Your task to perform on an android device: open app "LiveIn - Share Your Moment" (install if not already installed) Image 0: 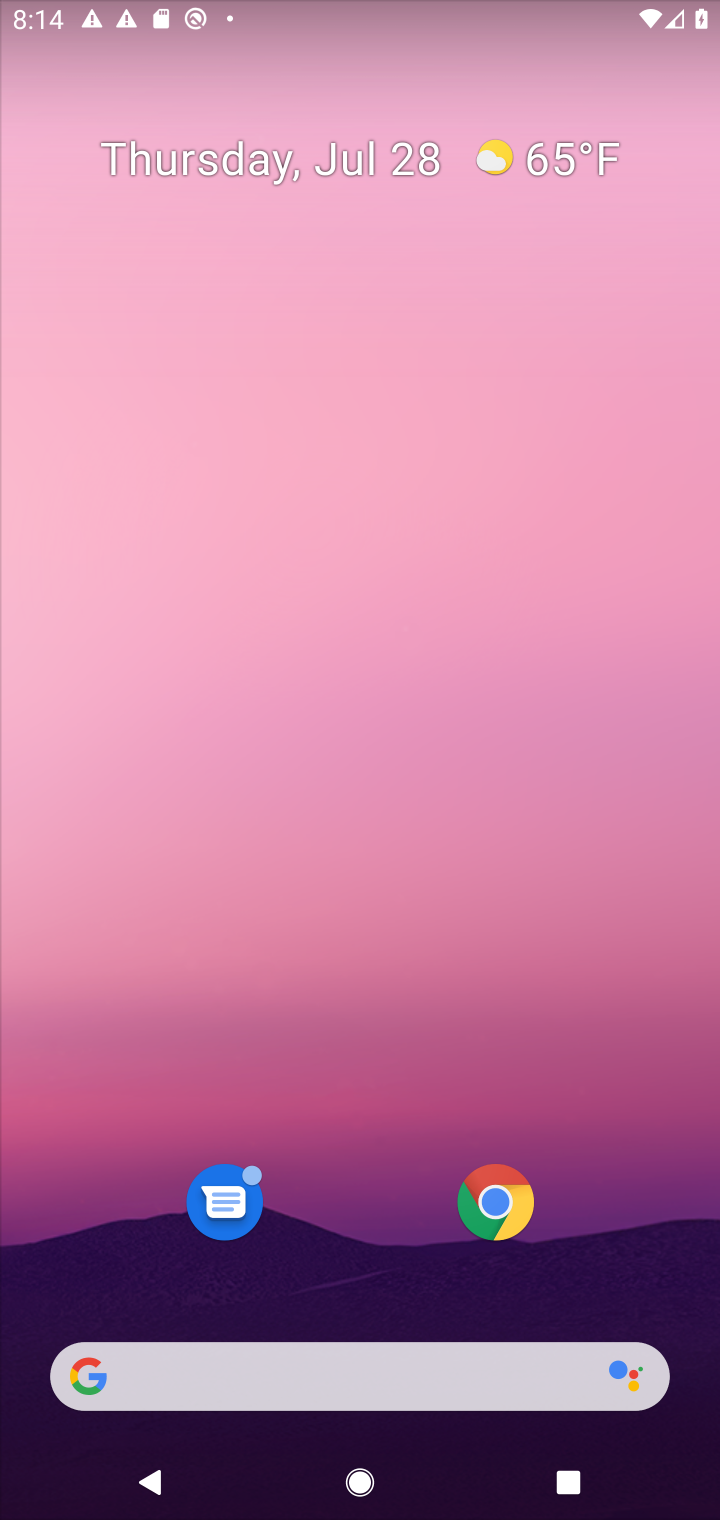
Step 0: drag from (357, 1298) to (371, 54)
Your task to perform on an android device: open app "LiveIn - Share Your Moment" (install if not already installed) Image 1: 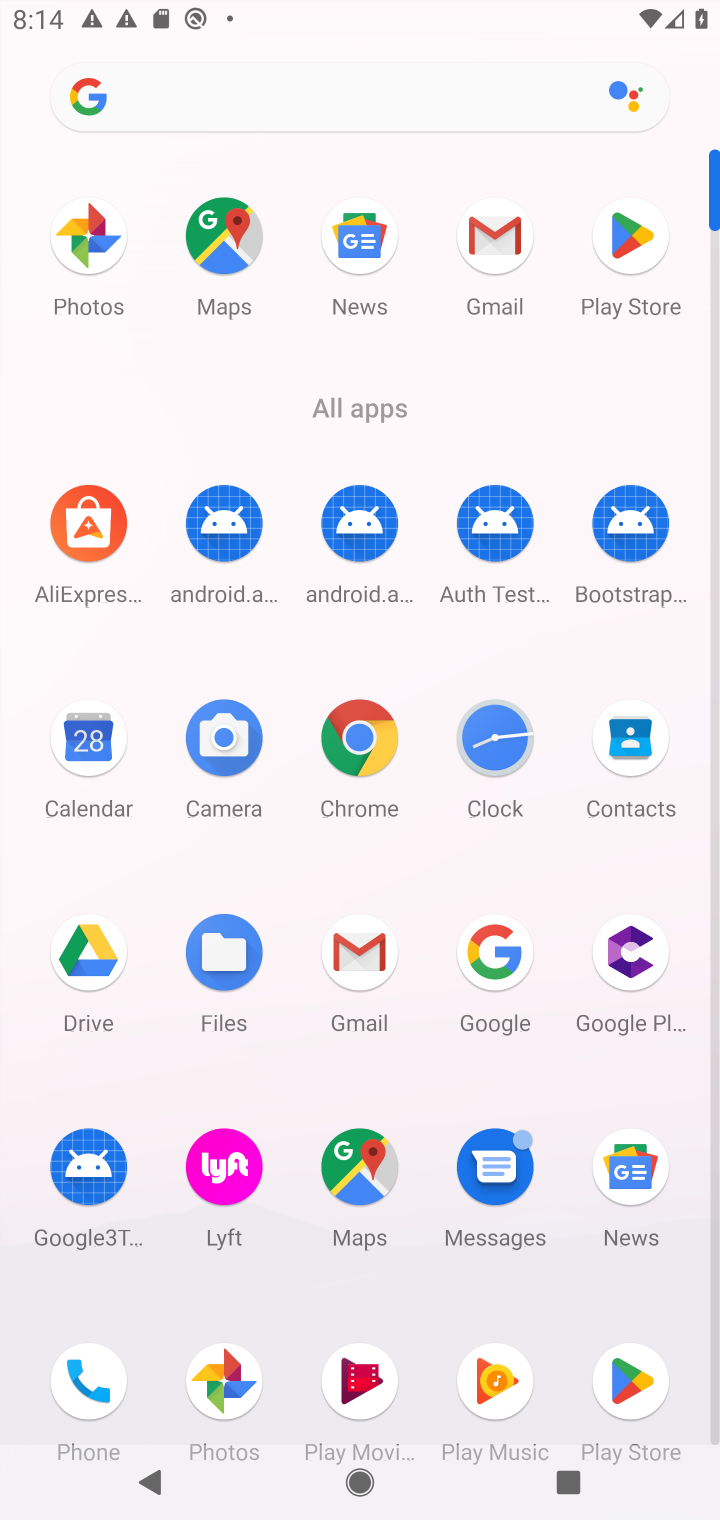
Step 1: click (627, 227)
Your task to perform on an android device: open app "LiveIn - Share Your Moment" (install if not already installed) Image 2: 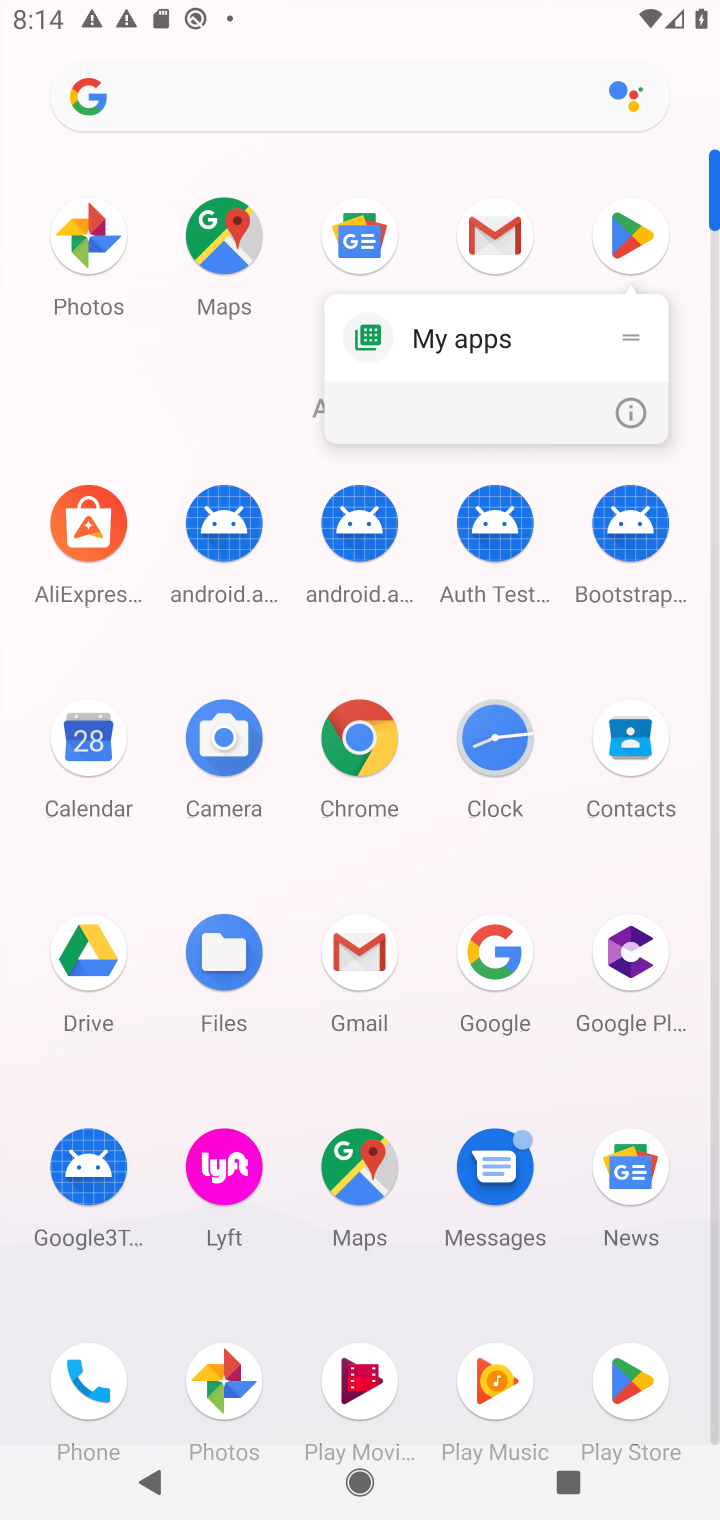
Step 2: click (628, 225)
Your task to perform on an android device: open app "LiveIn - Share Your Moment" (install if not already installed) Image 3: 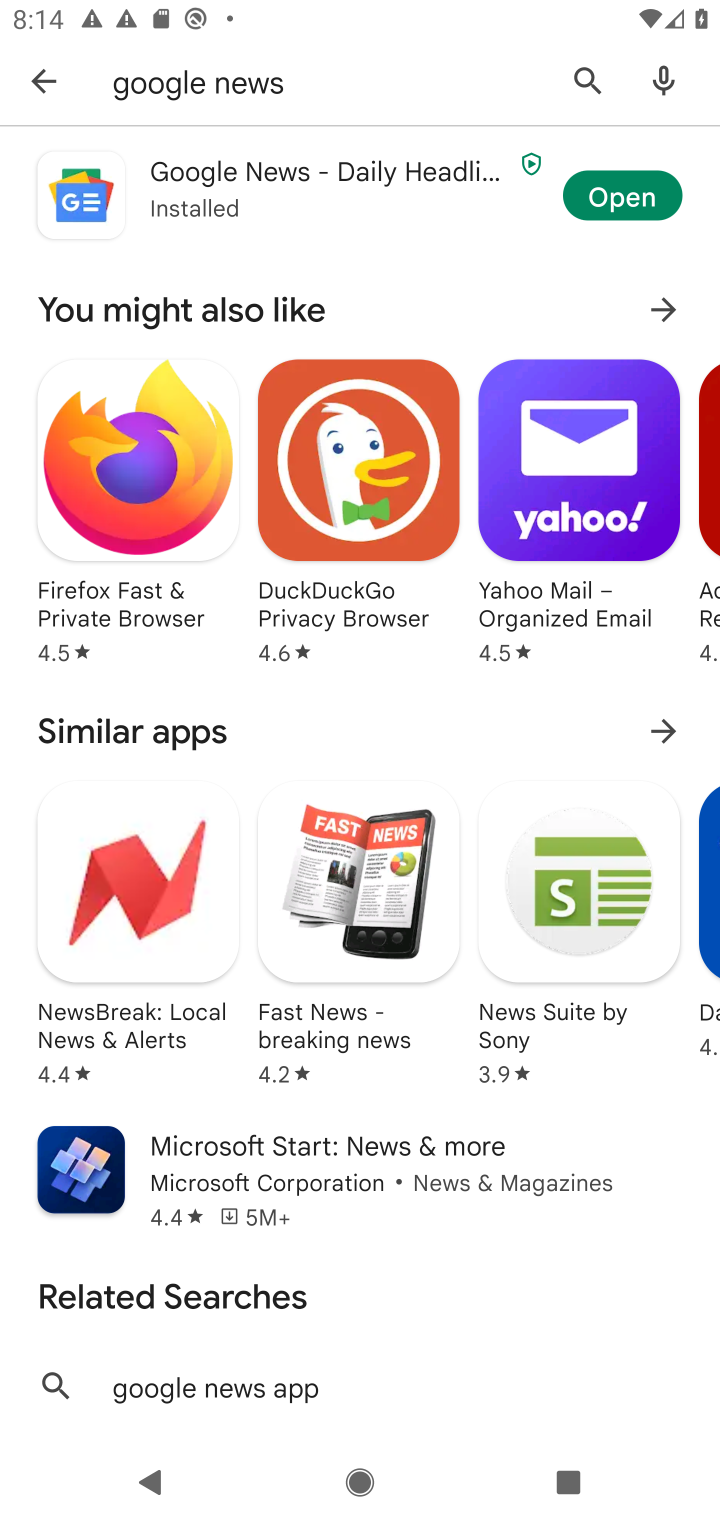
Step 3: click (576, 76)
Your task to perform on an android device: open app "LiveIn - Share Your Moment" (install if not already installed) Image 4: 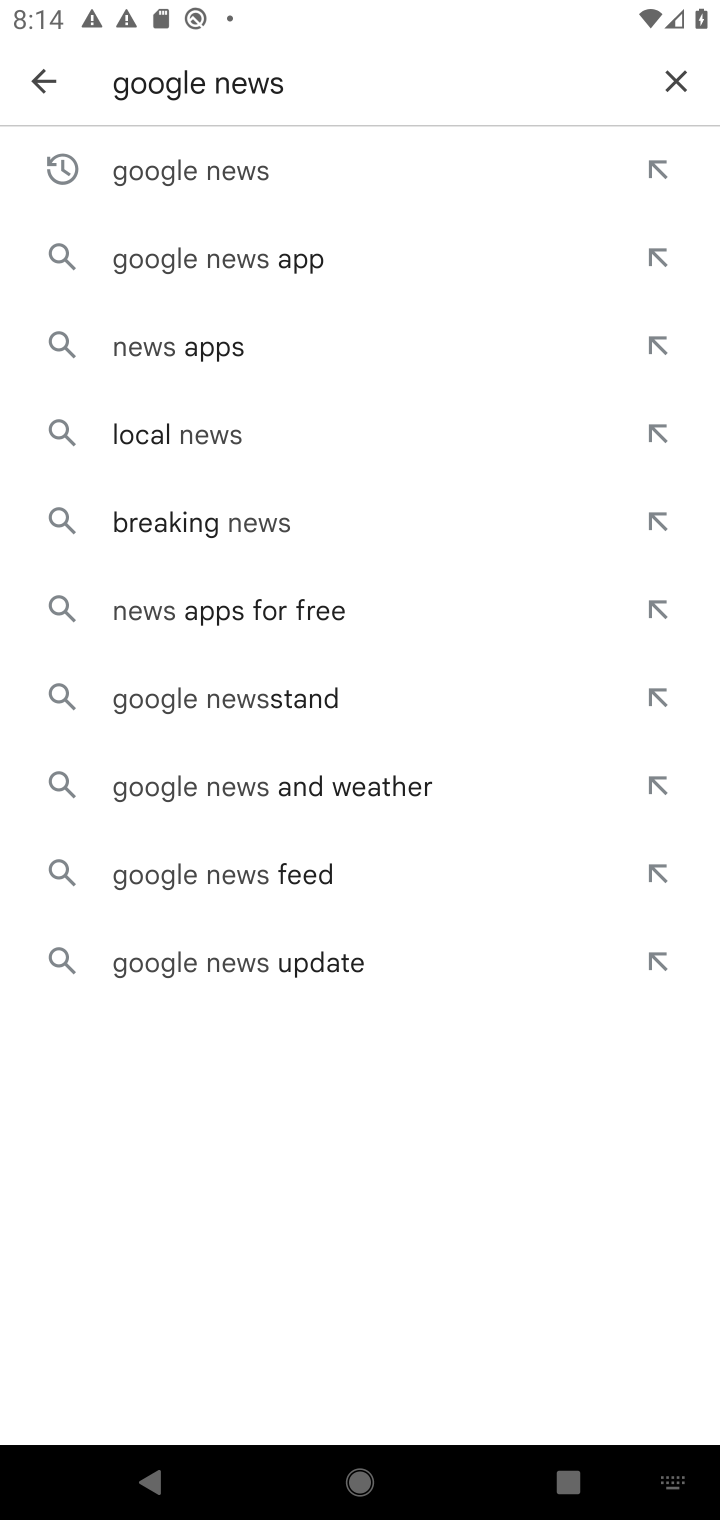
Step 4: click (681, 79)
Your task to perform on an android device: open app "LiveIn - Share Your Moment" (install if not already installed) Image 5: 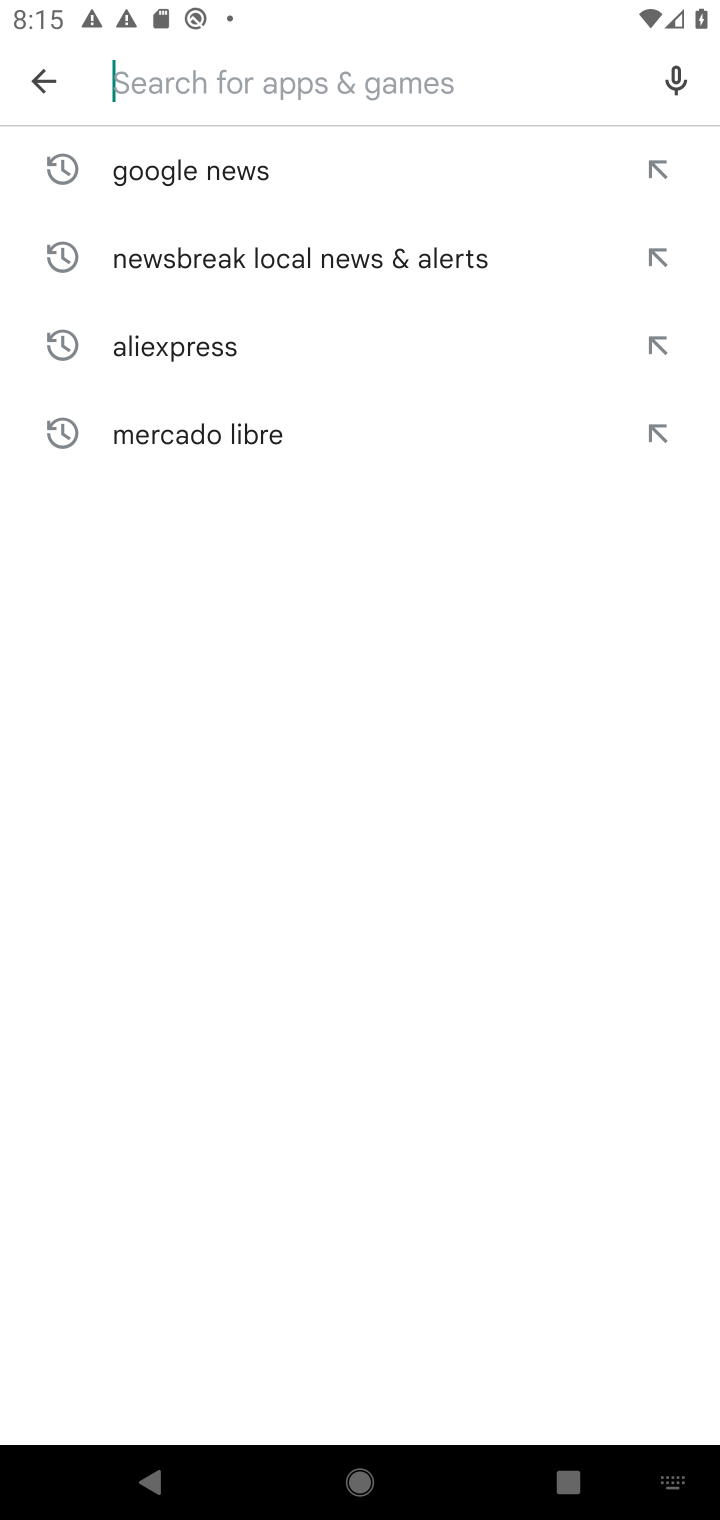
Step 5: type "LiveIn - Share Your Moment"
Your task to perform on an android device: open app "LiveIn - Share Your Moment" (install if not already installed) Image 6: 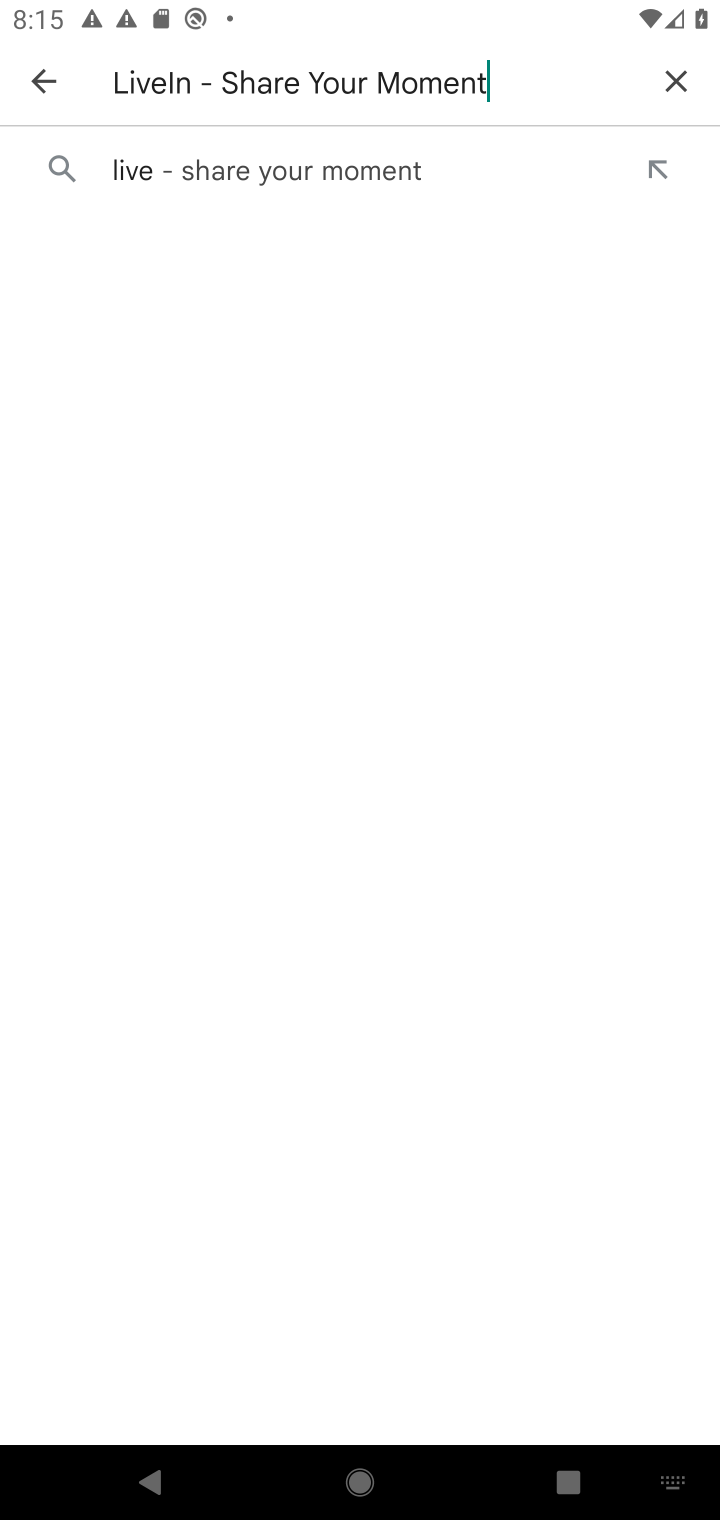
Step 6: click (274, 167)
Your task to perform on an android device: open app "LiveIn - Share Your Moment" (install if not already installed) Image 7: 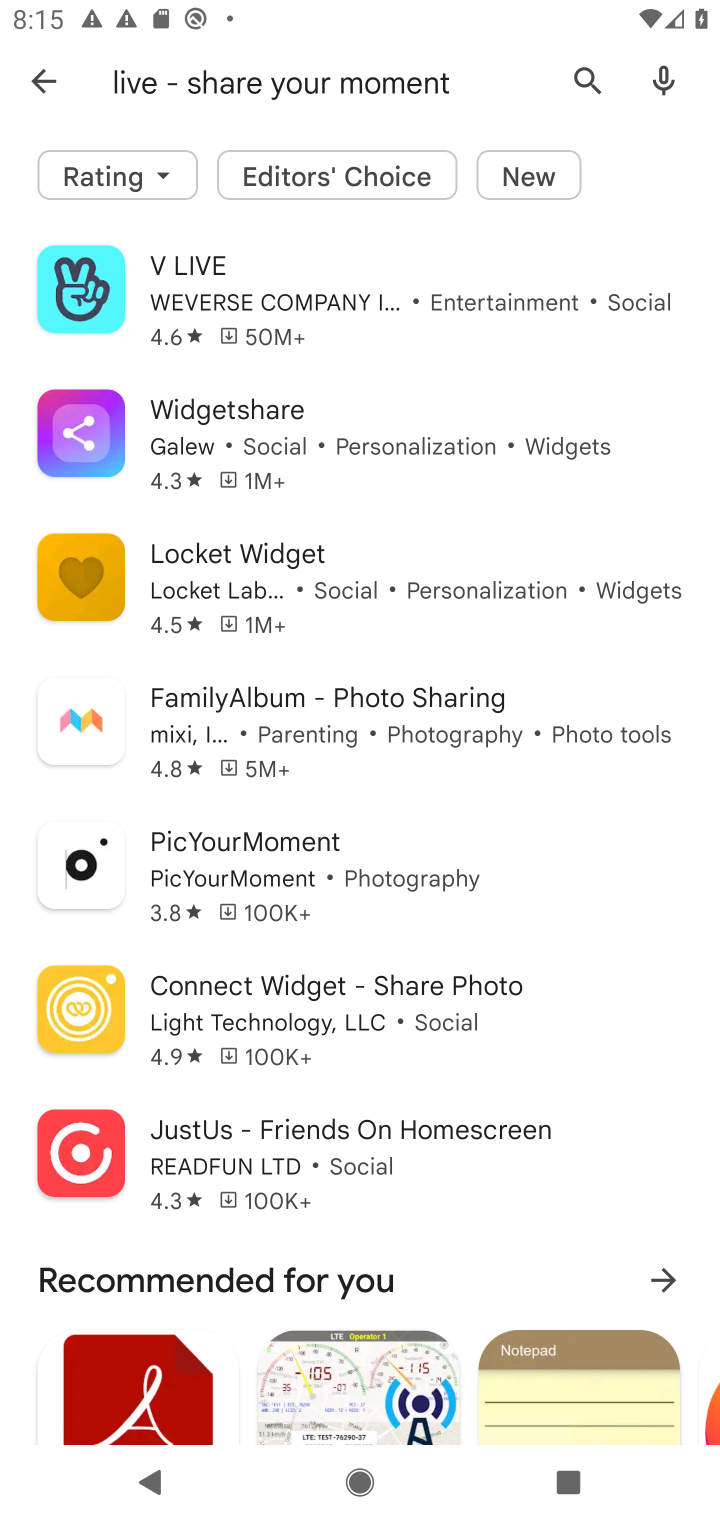
Step 7: task complete